Your task to perform on an android device: change the clock display to digital Image 0: 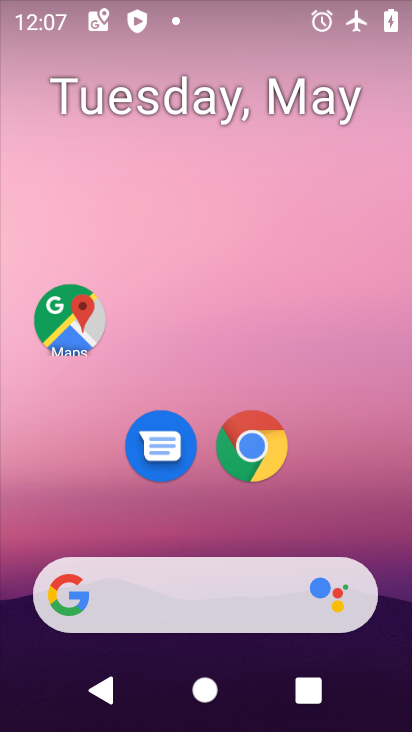
Step 0: drag from (287, 419) to (267, 137)
Your task to perform on an android device: change the clock display to digital Image 1: 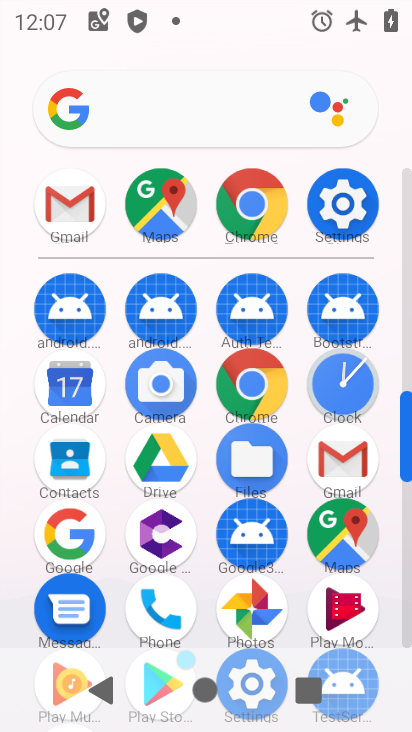
Step 1: click (339, 368)
Your task to perform on an android device: change the clock display to digital Image 2: 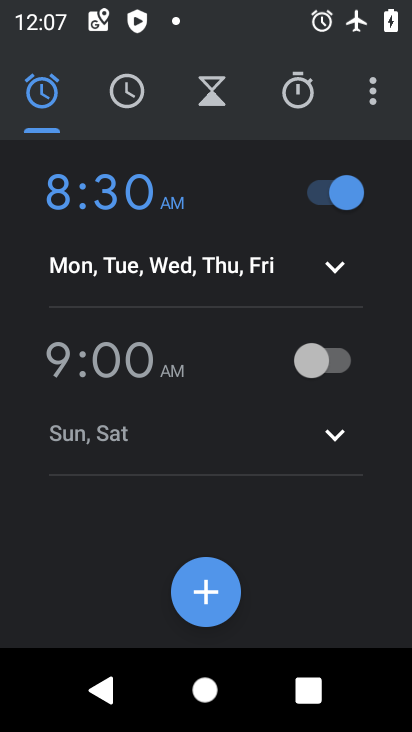
Step 2: click (369, 84)
Your task to perform on an android device: change the clock display to digital Image 3: 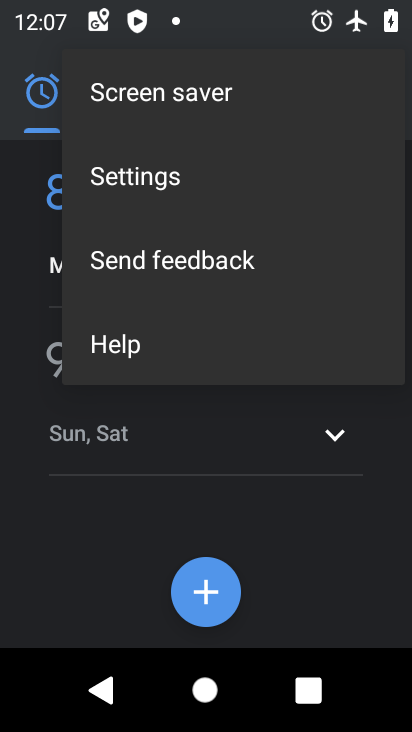
Step 3: click (162, 197)
Your task to perform on an android device: change the clock display to digital Image 4: 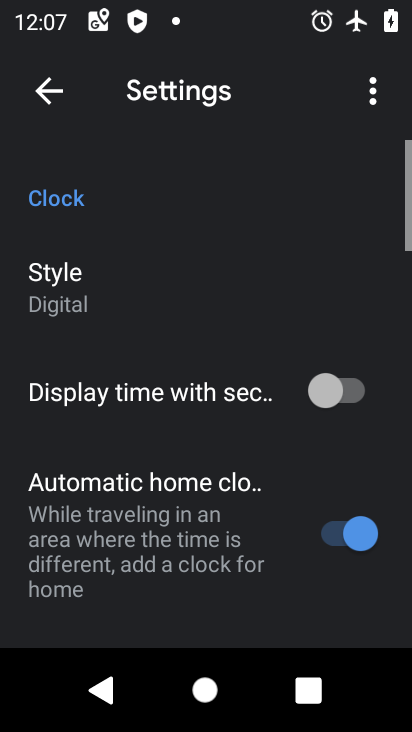
Step 4: click (108, 289)
Your task to perform on an android device: change the clock display to digital Image 5: 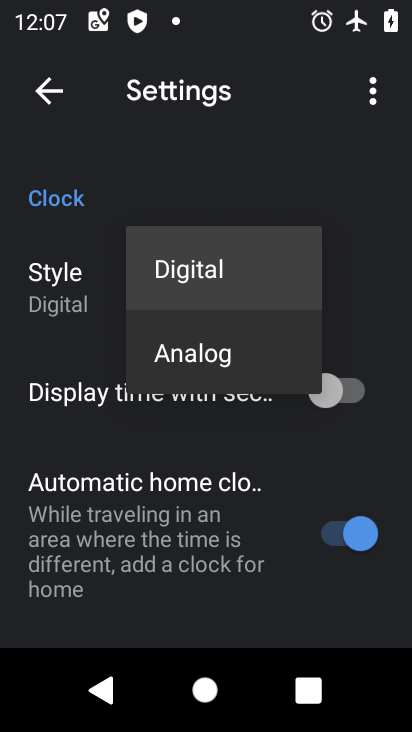
Step 5: click (199, 287)
Your task to perform on an android device: change the clock display to digital Image 6: 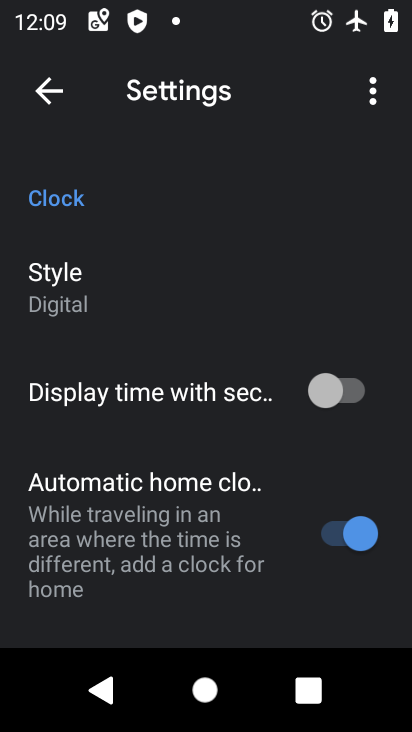
Step 6: task complete